Your task to perform on an android device: Search for "asus zenbook" on target.com, select the first entry, and add it to the cart. Image 0: 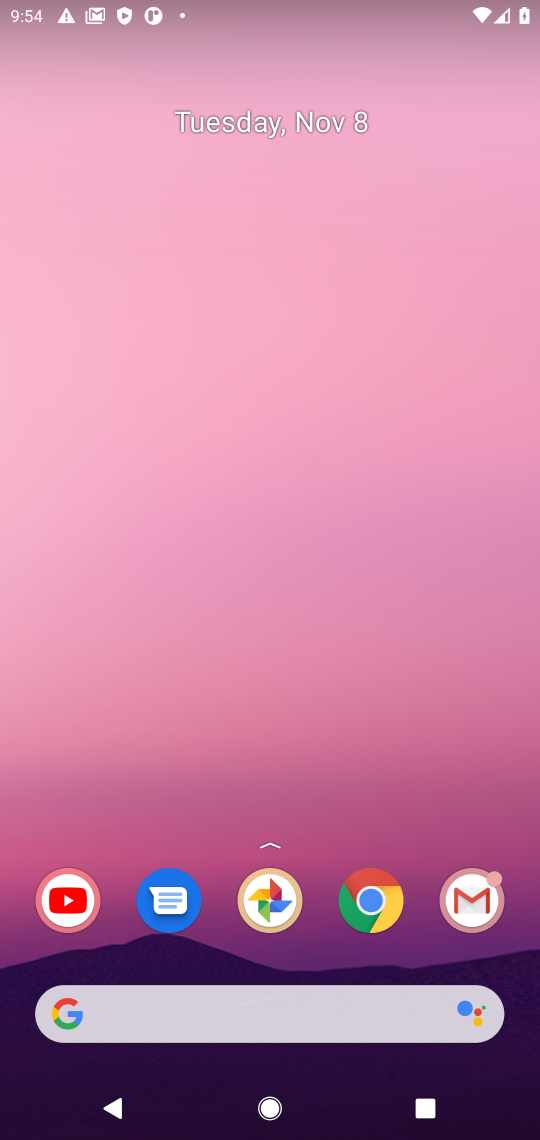
Step 0: click (395, 908)
Your task to perform on an android device: Search for "asus zenbook" on target.com, select the first entry, and add it to the cart. Image 1: 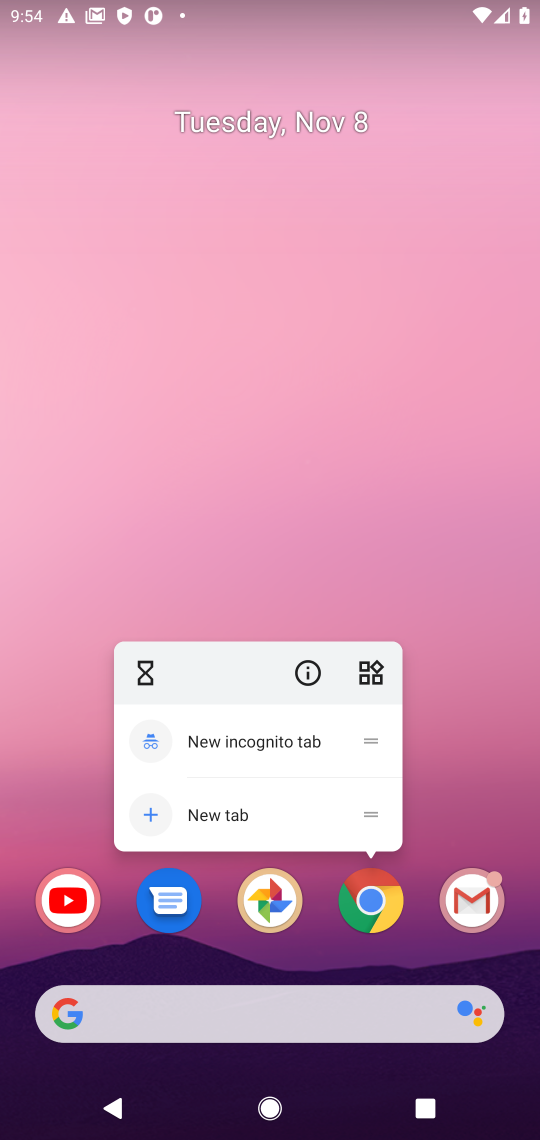
Step 1: click (377, 904)
Your task to perform on an android device: Search for "asus zenbook" on target.com, select the first entry, and add it to the cart. Image 2: 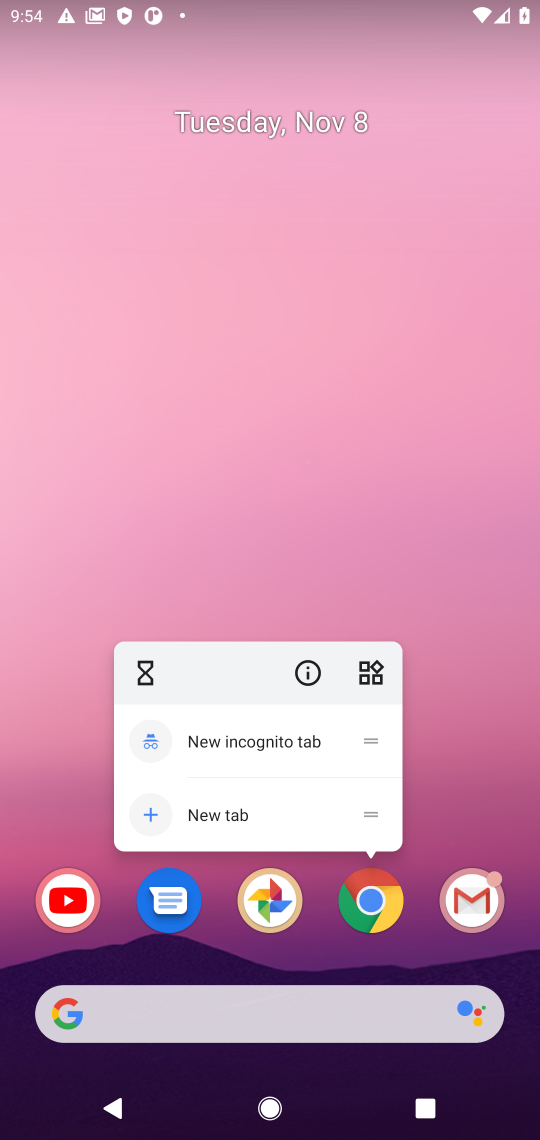
Step 2: click (377, 904)
Your task to perform on an android device: Search for "asus zenbook" on target.com, select the first entry, and add it to the cart. Image 3: 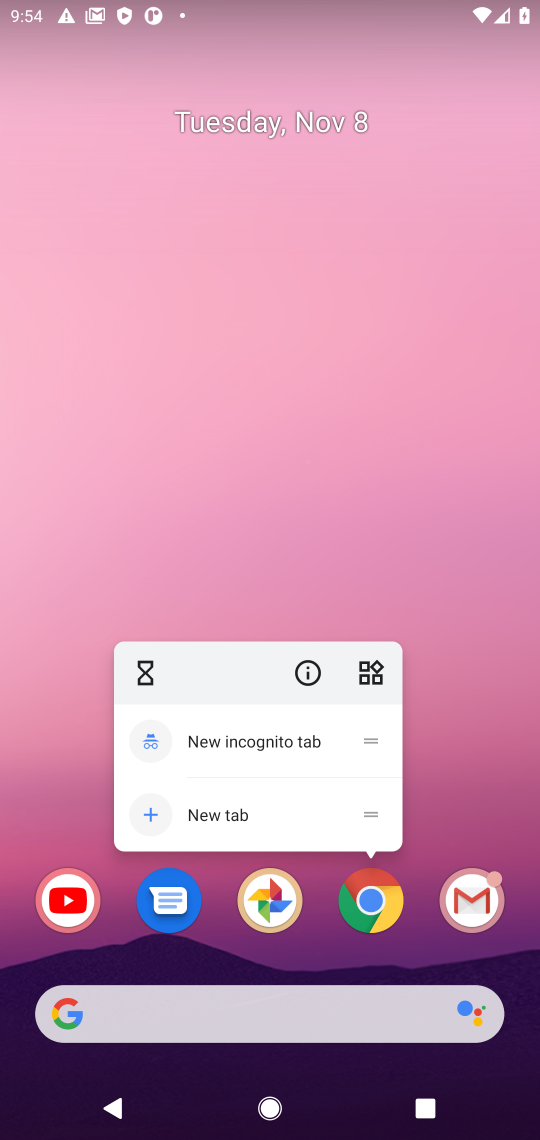
Step 3: click (377, 904)
Your task to perform on an android device: Search for "asus zenbook" on target.com, select the first entry, and add it to the cart. Image 4: 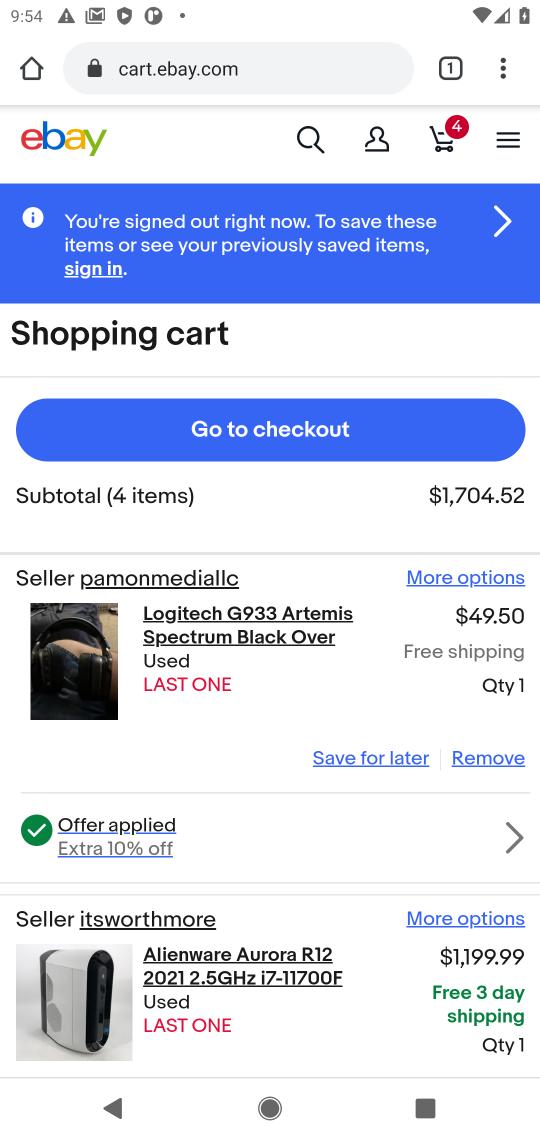
Step 4: click (221, 64)
Your task to perform on an android device: Search for "asus zenbook" on target.com, select the first entry, and add it to the cart. Image 5: 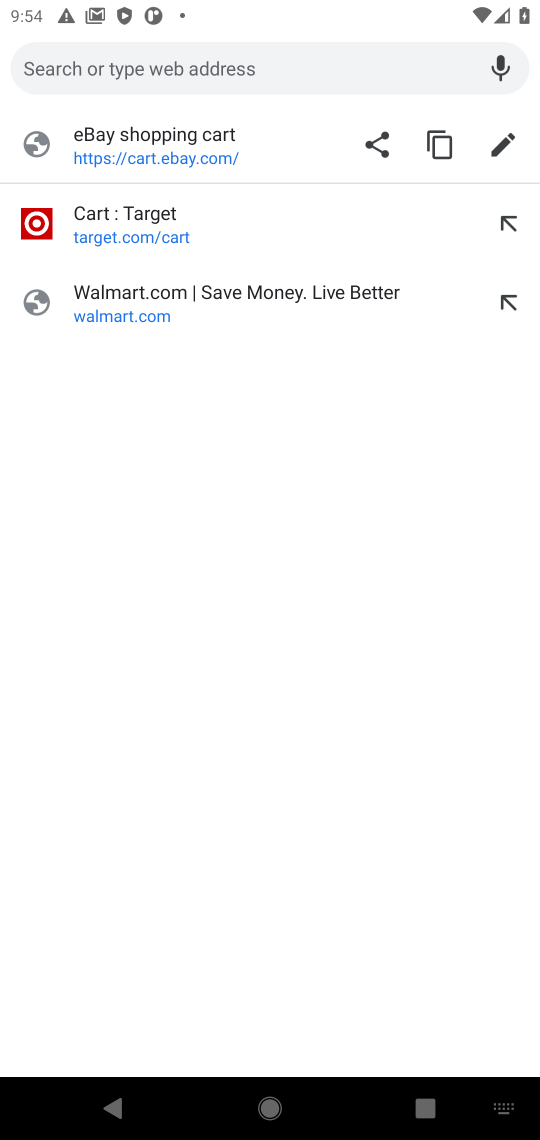
Step 5: type "target"
Your task to perform on an android device: Search for "asus zenbook" on target.com, select the first entry, and add it to the cart. Image 6: 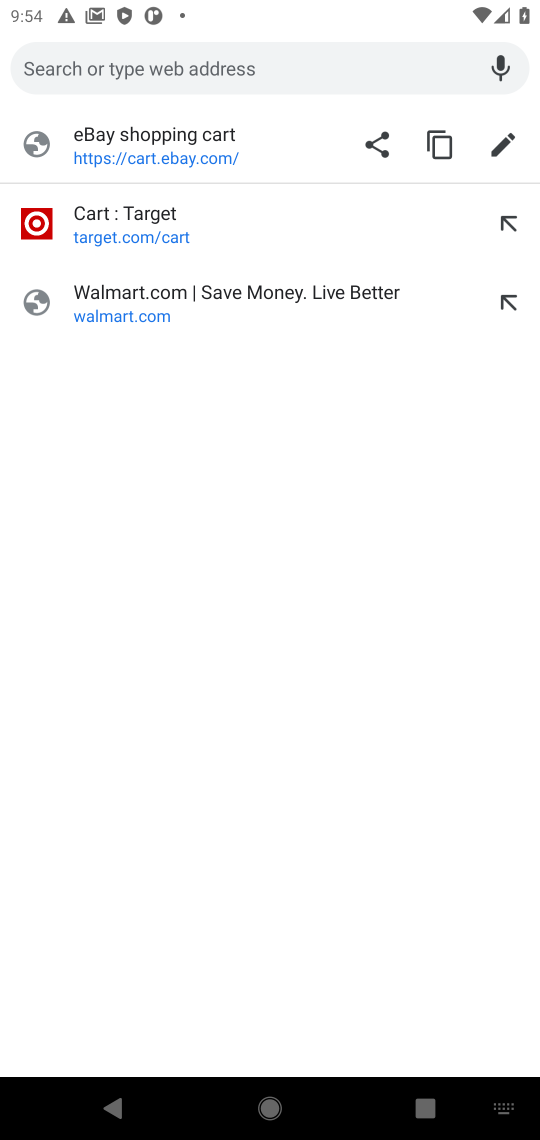
Step 6: click (142, 222)
Your task to perform on an android device: Search for "asus zenbook" on target.com, select the first entry, and add it to the cart. Image 7: 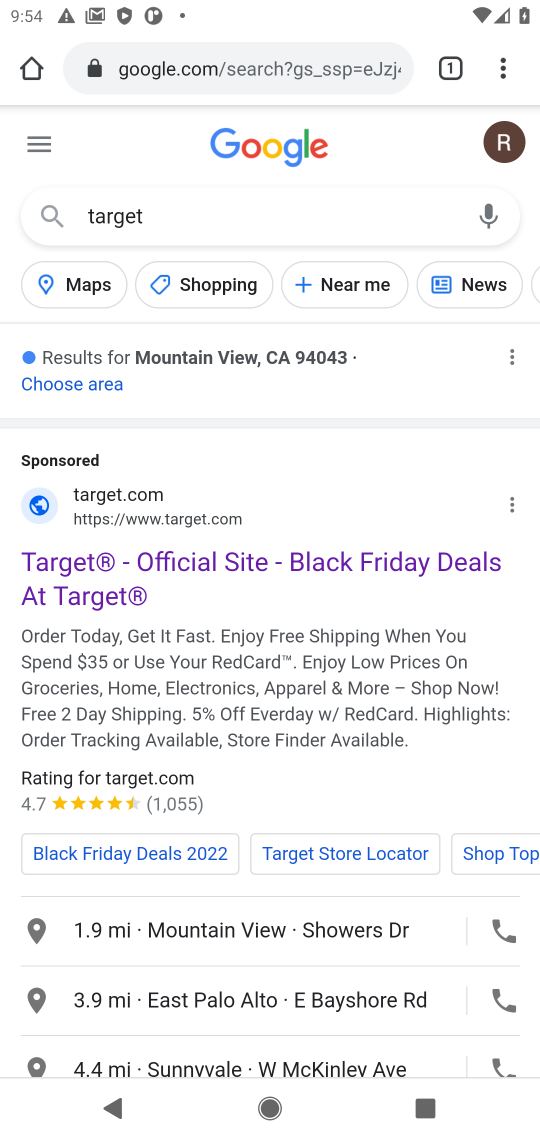
Step 7: drag from (208, 880) to (252, 369)
Your task to perform on an android device: Search for "asus zenbook" on target.com, select the first entry, and add it to the cart. Image 8: 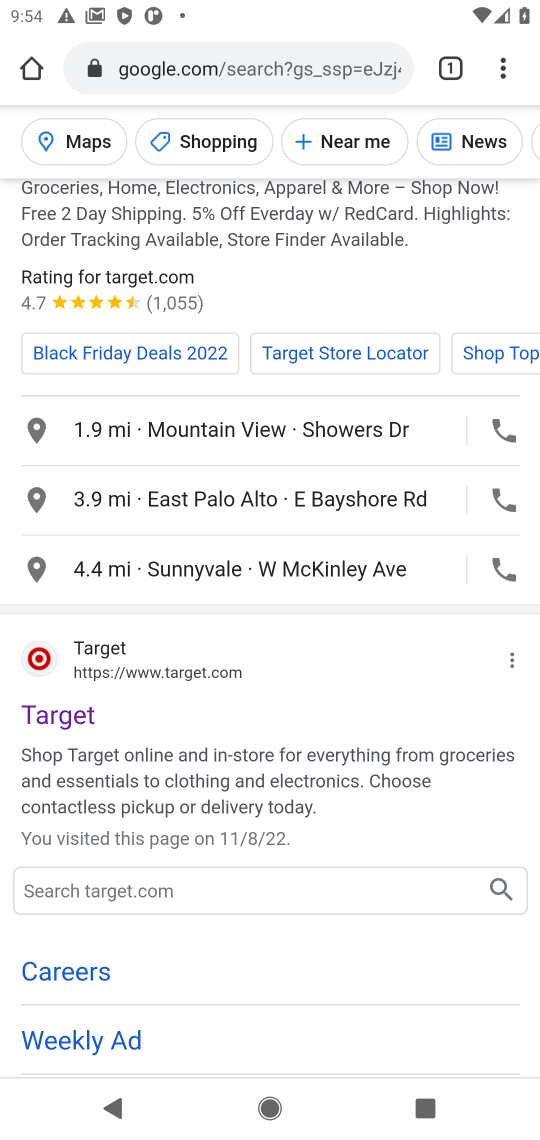
Step 8: click (66, 714)
Your task to perform on an android device: Search for "asus zenbook" on target.com, select the first entry, and add it to the cart. Image 9: 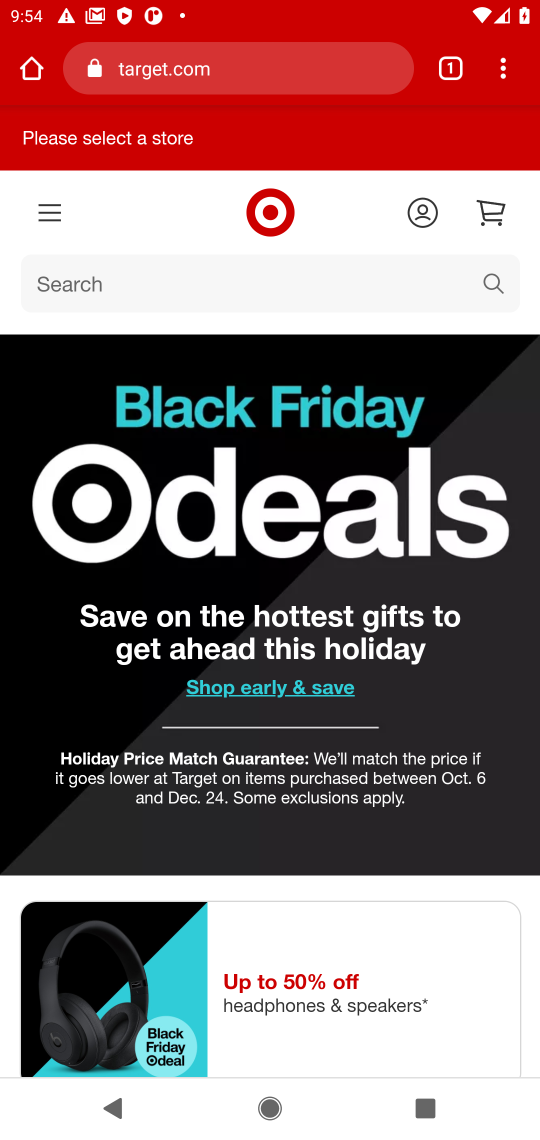
Step 9: click (483, 278)
Your task to perform on an android device: Search for "asus zenbook" on target.com, select the first entry, and add it to the cart. Image 10: 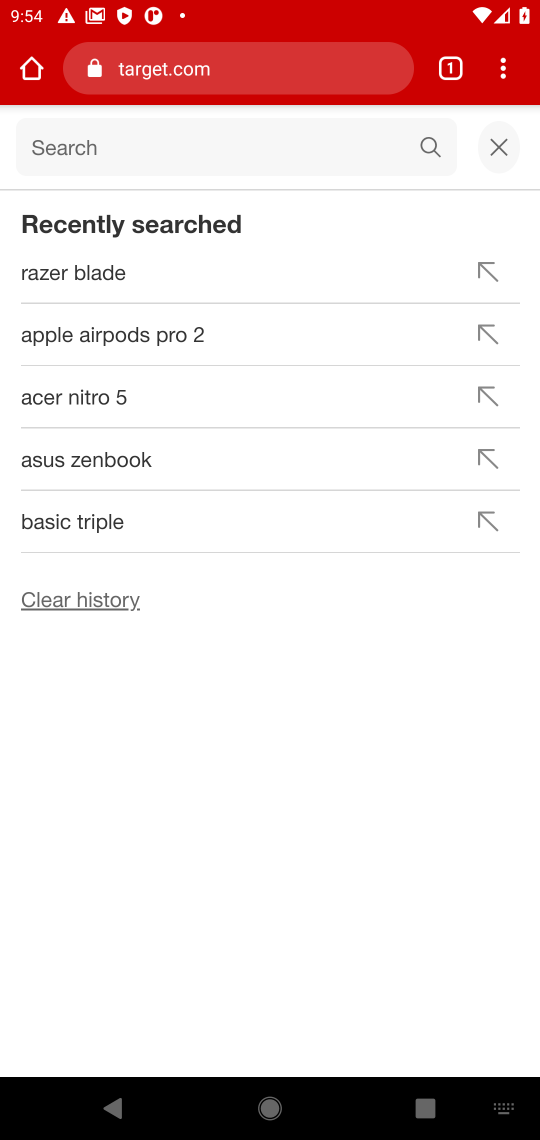
Step 10: type "asus zenbook "
Your task to perform on an android device: Search for "asus zenbook" on target.com, select the first entry, and add it to the cart. Image 11: 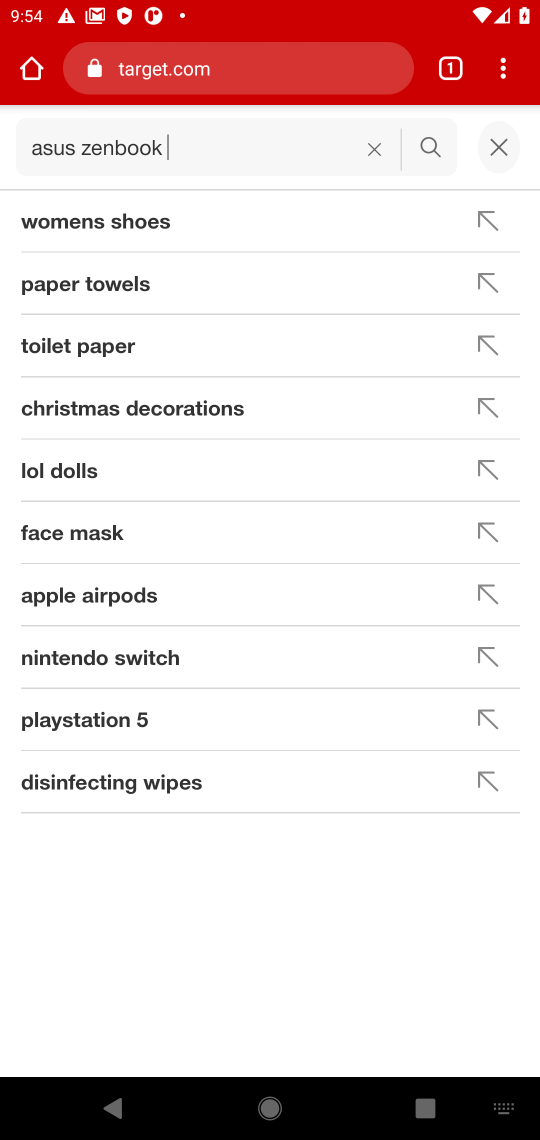
Step 11: type ""
Your task to perform on an android device: Search for "asus zenbook" on target.com, select the first entry, and add it to the cart. Image 12: 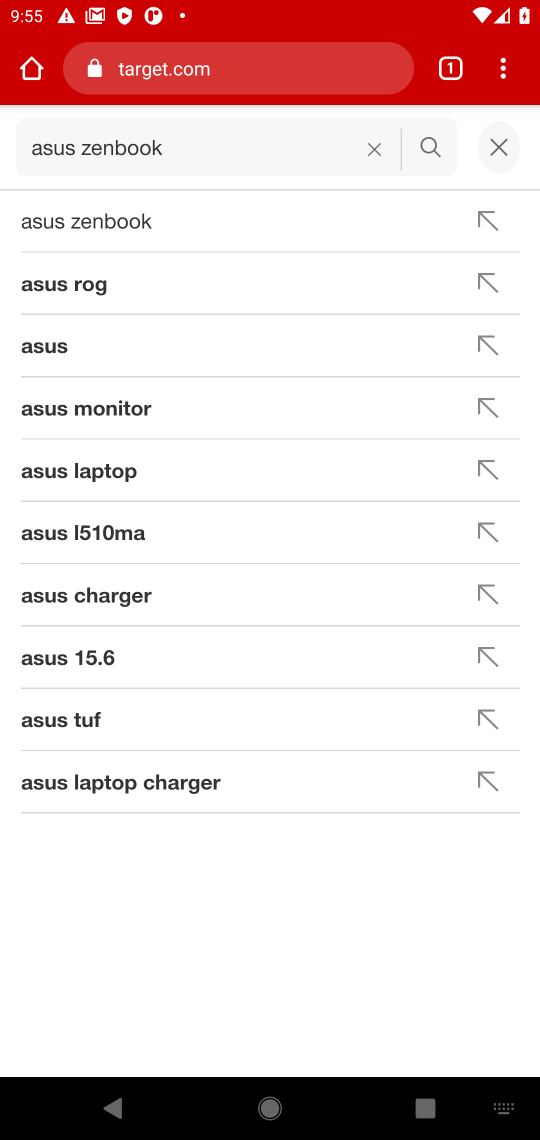
Step 12: click (109, 222)
Your task to perform on an android device: Search for "asus zenbook" on target.com, select the first entry, and add it to the cart. Image 13: 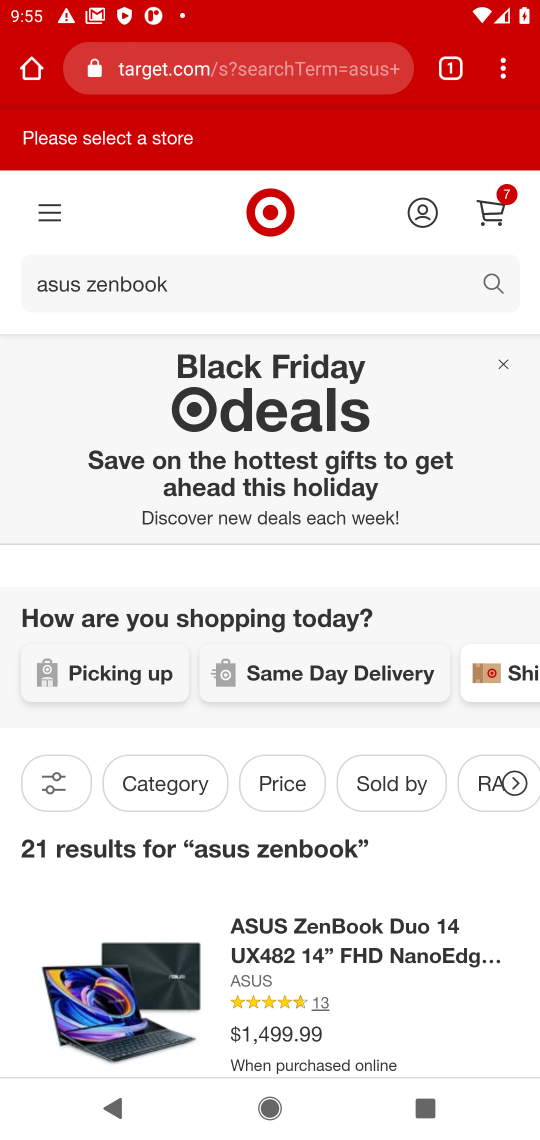
Step 13: drag from (302, 802) to (316, 489)
Your task to perform on an android device: Search for "asus zenbook" on target.com, select the first entry, and add it to the cart. Image 14: 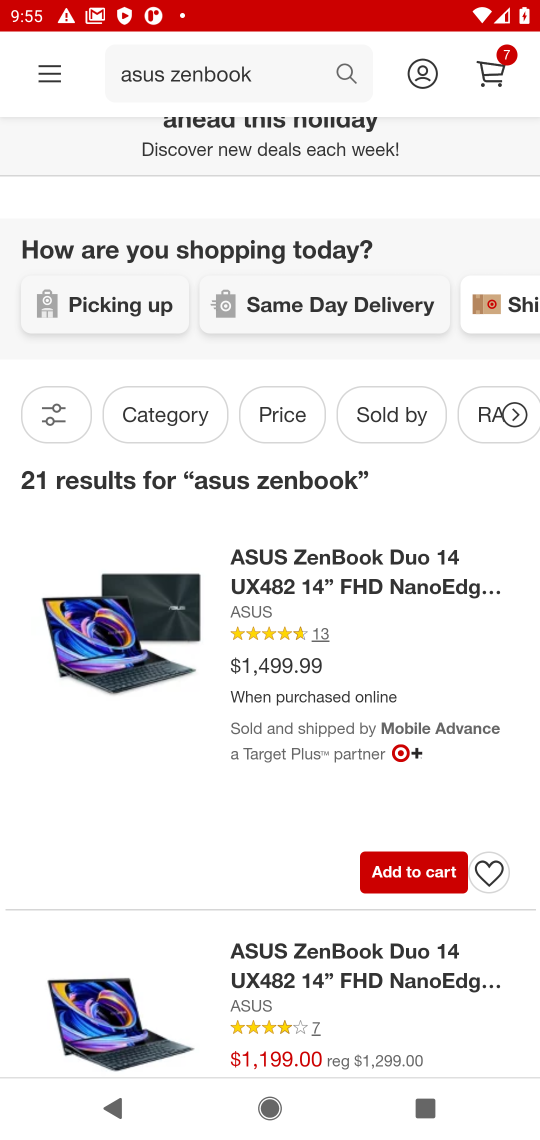
Step 14: click (362, 553)
Your task to perform on an android device: Search for "asus zenbook" on target.com, select the first entry, and add it to the cart. Image 15: 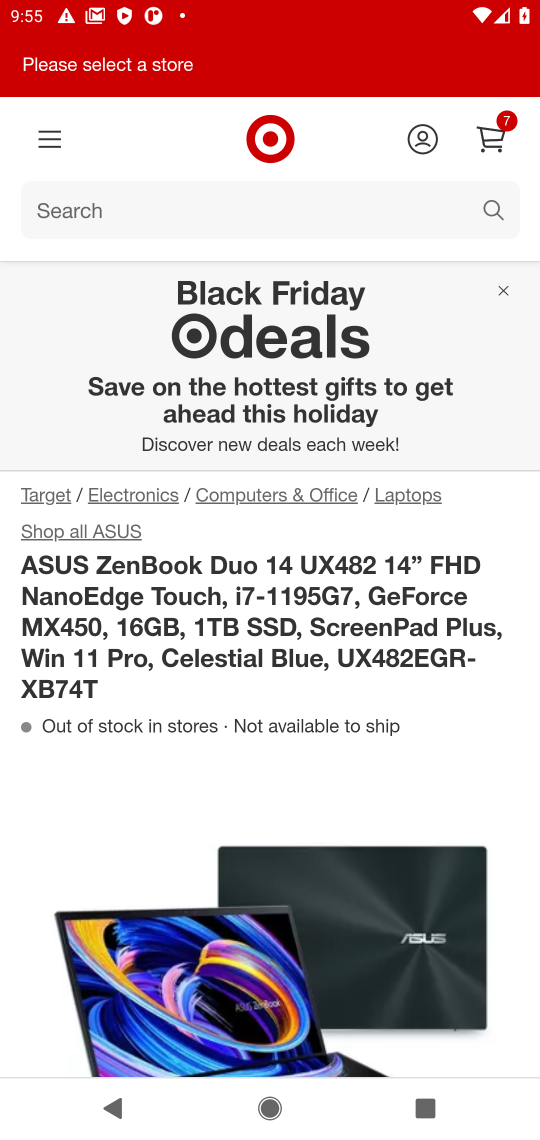
Step 15: drag from (187, 767) to (172, 376)
Your task to perform on an android device: Search for "asus zenbook" on target.com, select the first entry, and add it to the cart. Image 16: 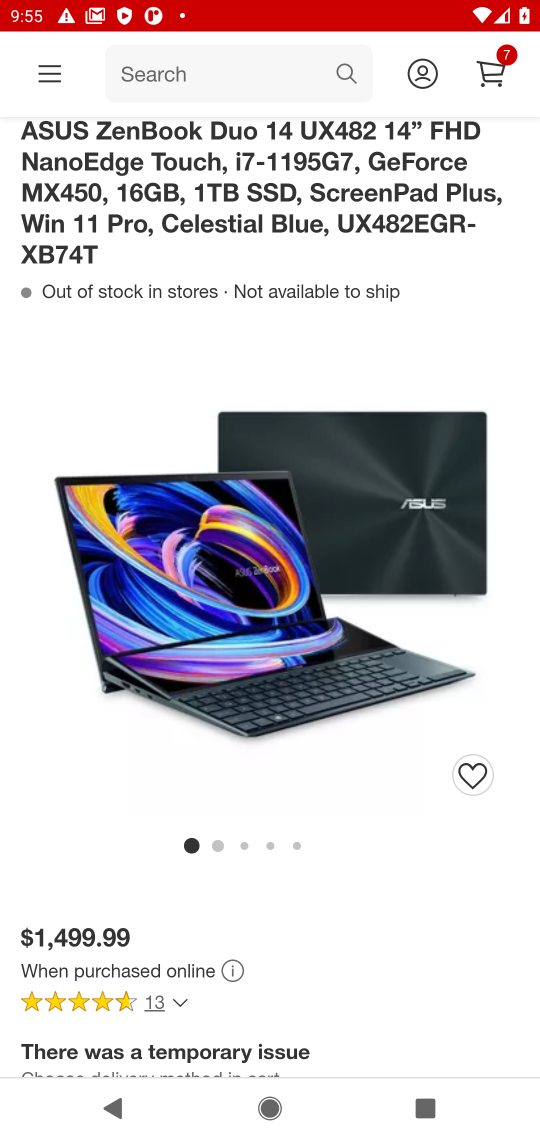
Step 16: drag from (193, 869) to (203, 423)
Your task to perform on an android device: Search for "asus zenbook" on target.com, select the first entry, and add it to the cart. Image 17: 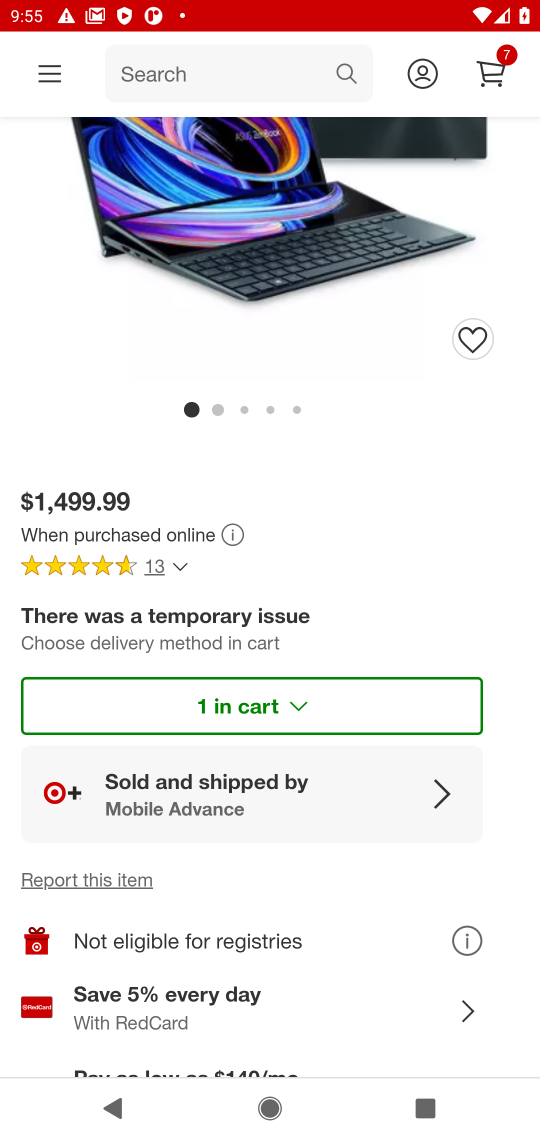
Step 17: drag from (277, 732) to (234, 334)
Your task to perform on an android device: Search for "asus zenbook" on target.com, select the first entry, and add it to the cart. Image 18: 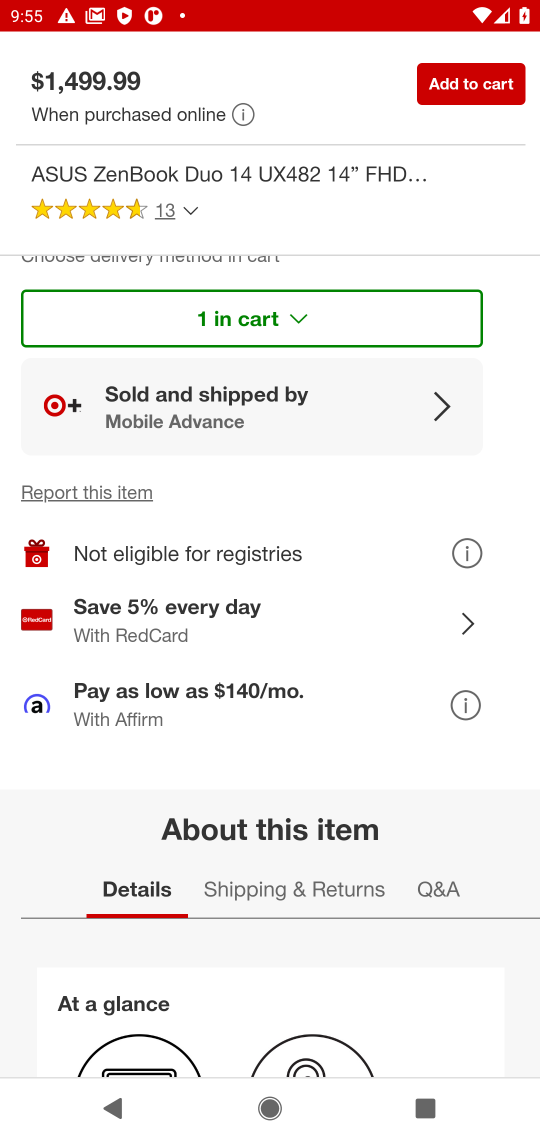
Step 18: click (213, 317)
Your task to perform on an android device: Search for "asus zenbook" on target.com, select the first entry, and add it to the cart. Image 19: 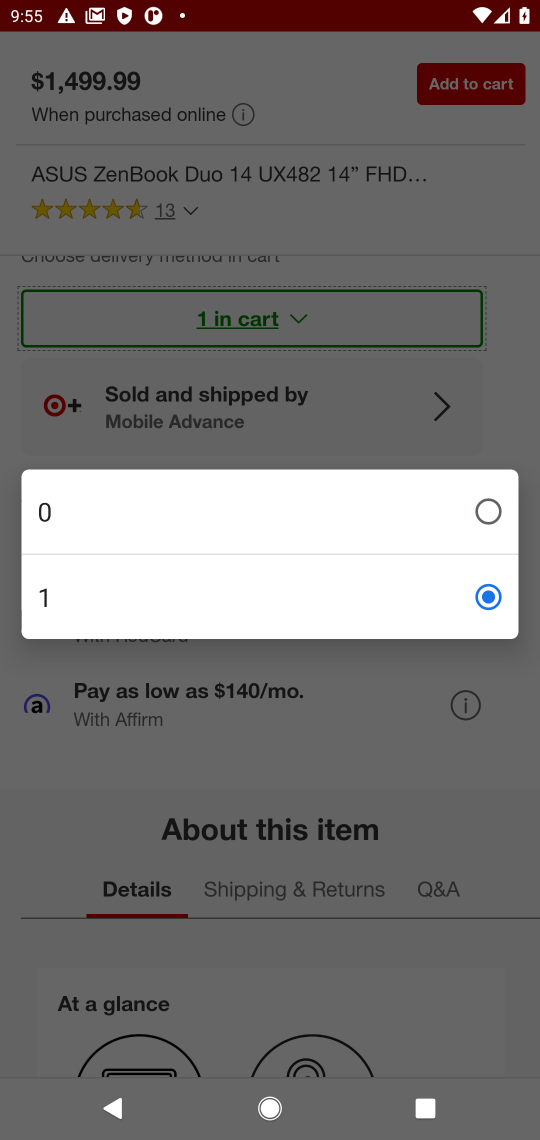
Step 19: drag from (320, 918) to (385, 338)
Your task to perform on an android device: Search for "asus zenbook" on target.com, select the first entry, and add it to the cart. Image 20: 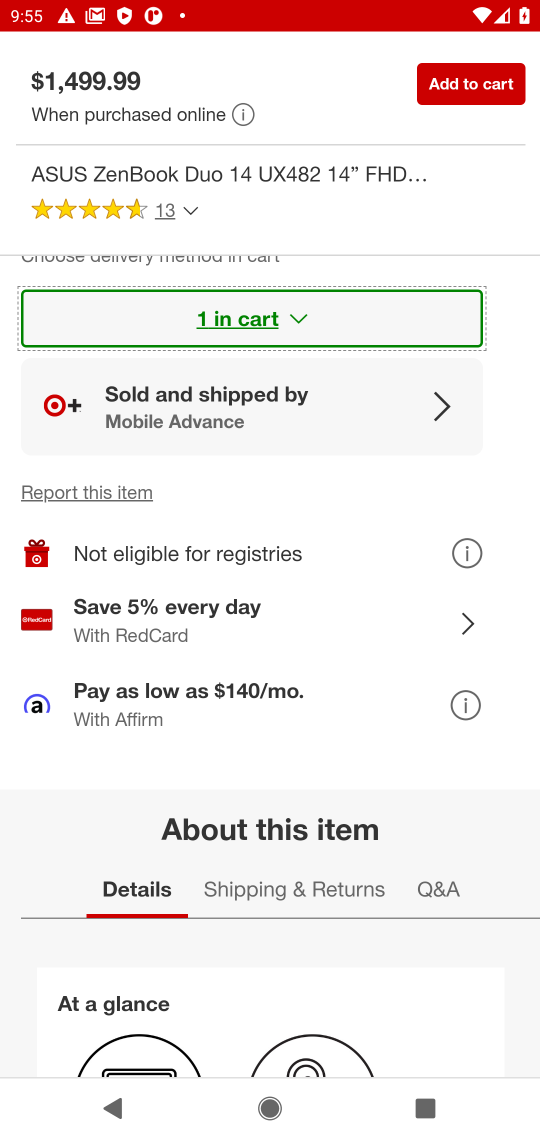
Step 20: click (478, 77)
Your task to perform on an android device: Search for "asus zenbook" on target.com, select the first entry, and add it to the cart. Image 21: 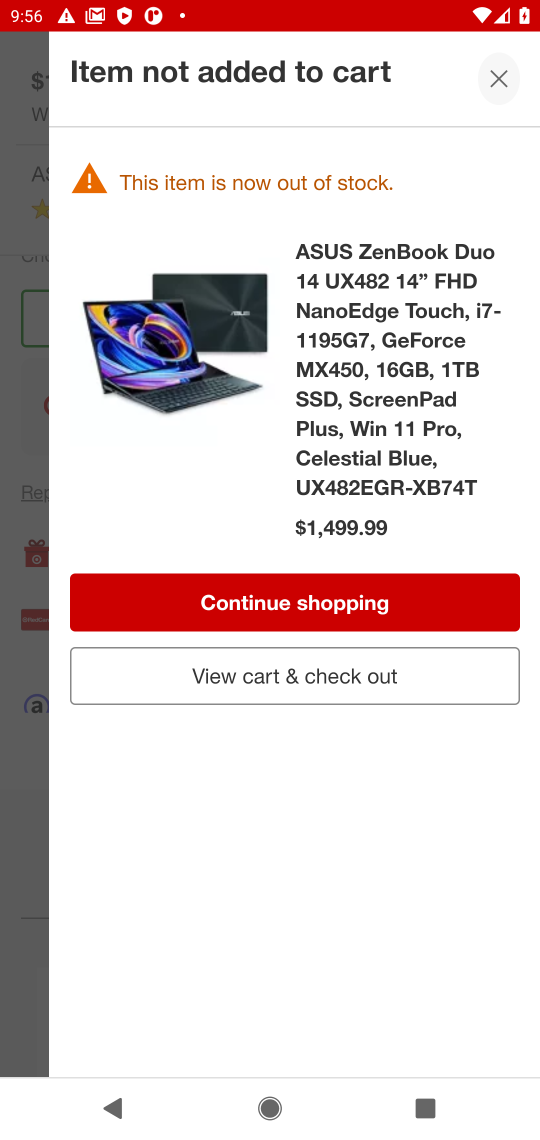
Step 21: click (262, 678)
Your task to perform on an android device: Search for "asus zenbook" on target.com, select the first entry, and add it to the cart. Image 22: 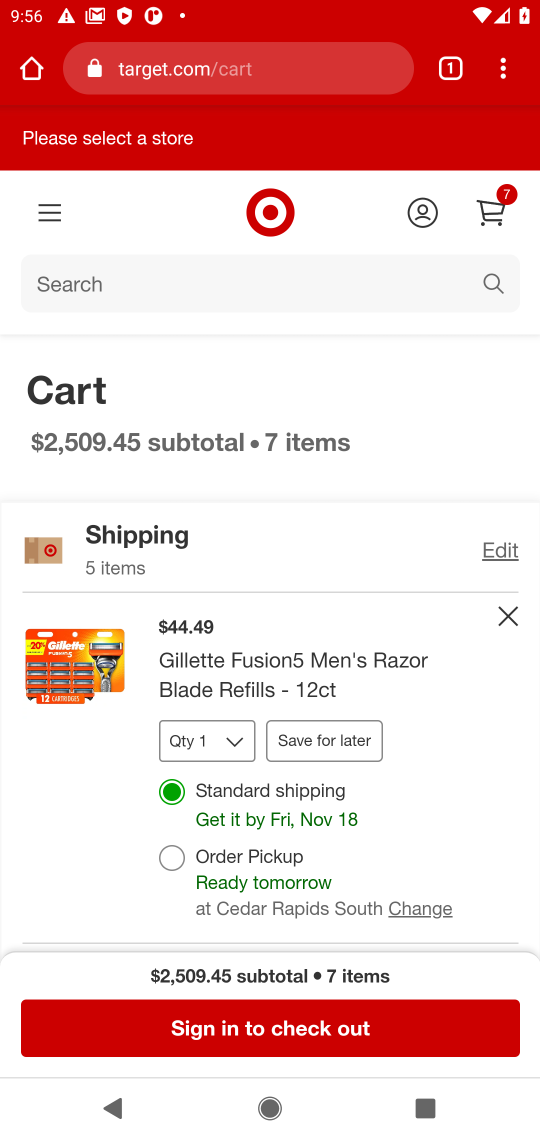
Step 22: task complete